Your task to perform on an android device: Open Google Chrome and click the shortcut for Amazon.com Image 0: 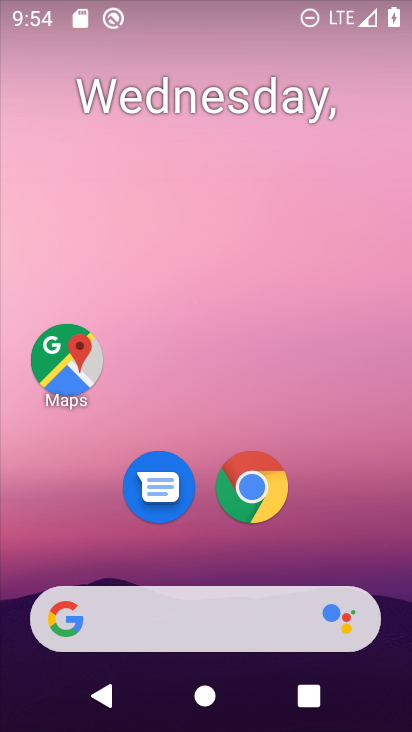
Step 0: click (262, 483)
Your task to perform on an android device: Open Google Chrome and click the shortcut for Amazon.com Image 1: 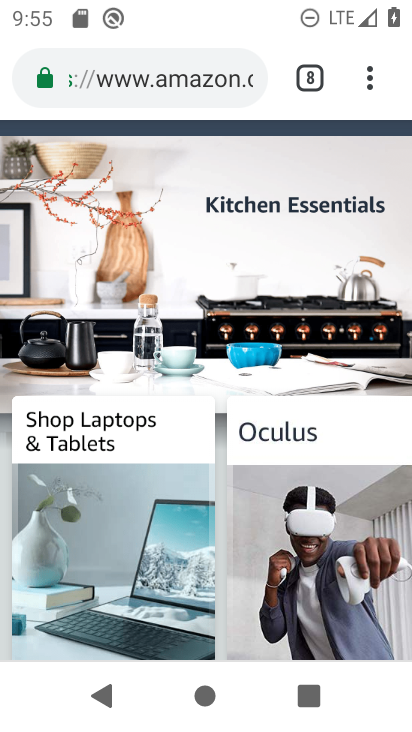
Step 1: click (369, 73)
Your task to perform on an android device: Open Google Chrome and click the shortcut for Amazon.com Image 2: 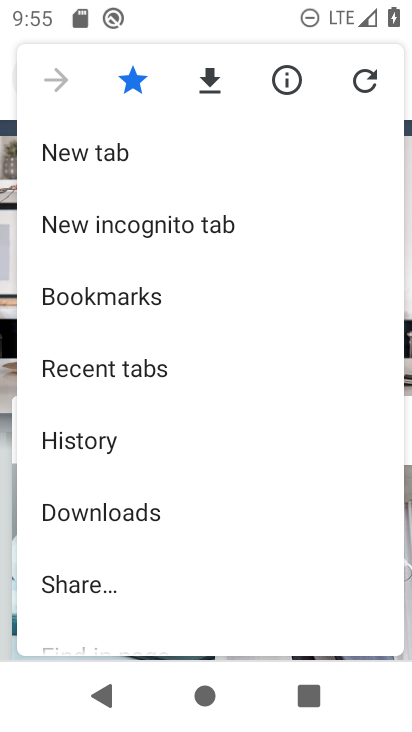
Step 2: click (102, 155)
Your task to perform on an android device: Open Google Chrome and click the shortcut for Amazon.com Image 3: 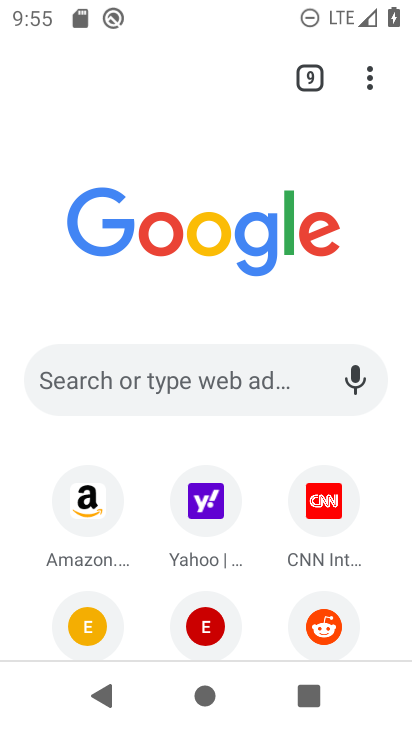
Step 3: click (106, 493)
Your task to perform on an android device: Open Google Chrome and click the shortcut for Amazon.com Image 4: 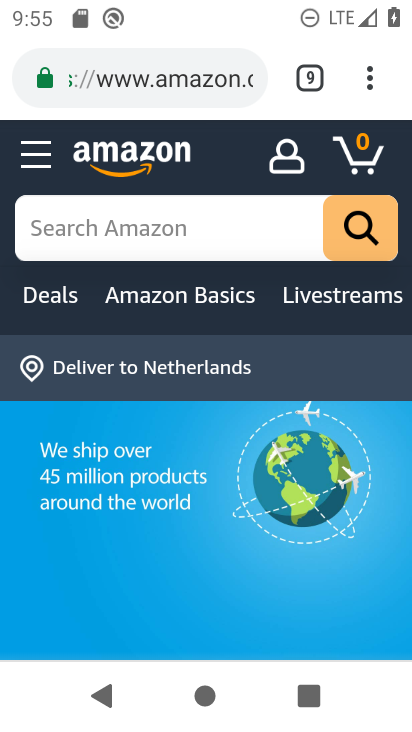
Step 4: task complete